Your task to perform on an android device: Clear all items from cart on ebay.com. Add panasonic triple a to the cart on ebay.com, then select checkout. Image 0: 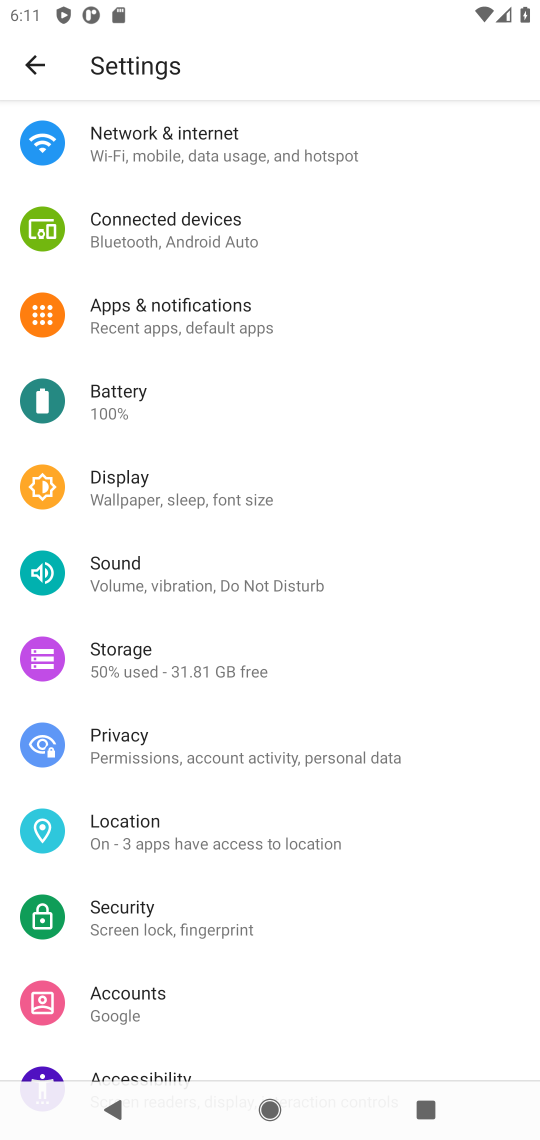
Step 0: press home button
Your task to perform on an android device: Clear all items from cart on ebay.com. Add panasonic triple a to the cart on ebay.com, then select checkout. Image 1: 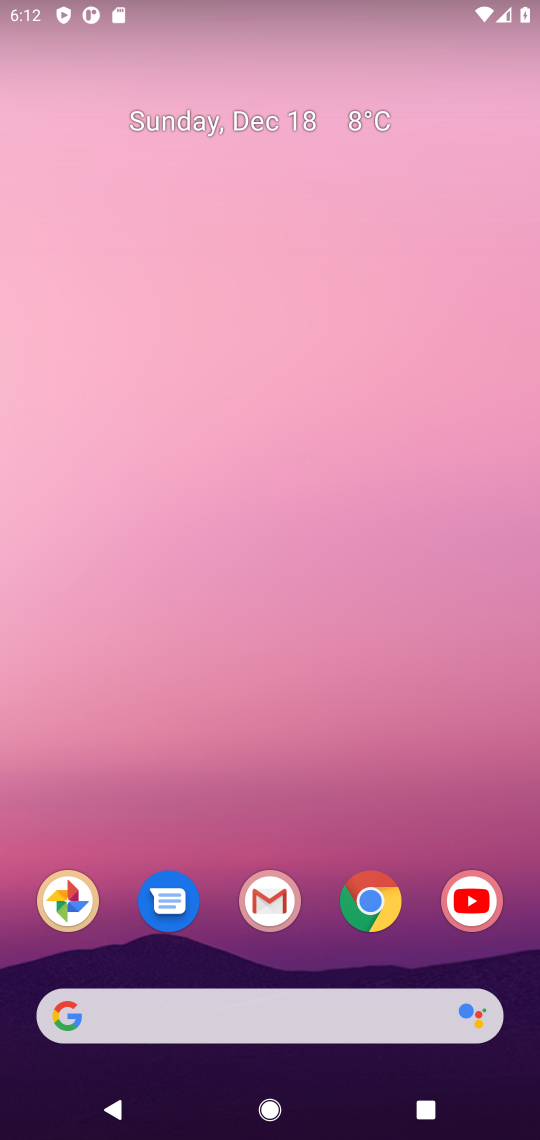
Step 1: click (356, 922)
Your task to perform on an android device: Clear all items from cart on ebay.com. Add panasonic triple a to the cart on ebay.com, then select checkout. Image 2: 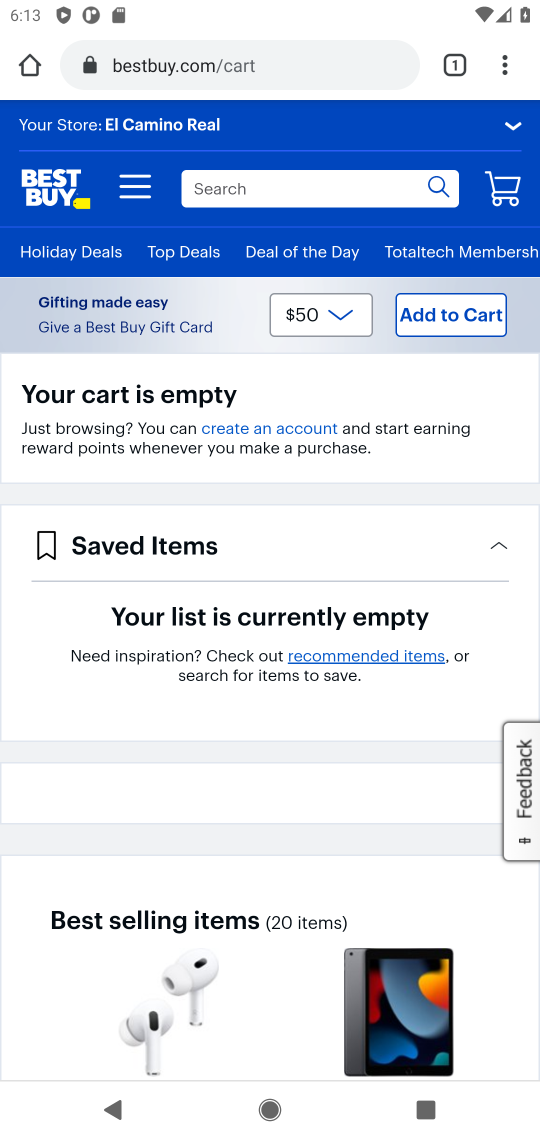
Step 2: click (215, 56)
Your task to perform on an android device: Clear all items from cart on ebay.com. Add panasonic triple a to the cart on ebay.com, then select checkout. Image 3: 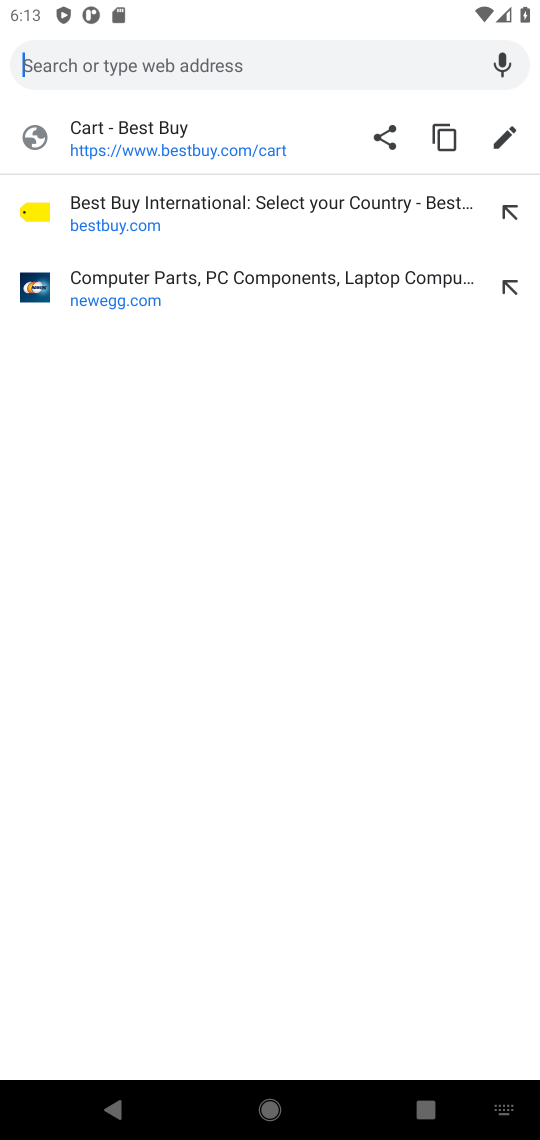
Step 3: type "ebay.com"
Your task to perform on an android device: Clear all items from cart on ebay.com. Add panasonic triple a to the cart on ebay.com, then select checkout. Image 4: 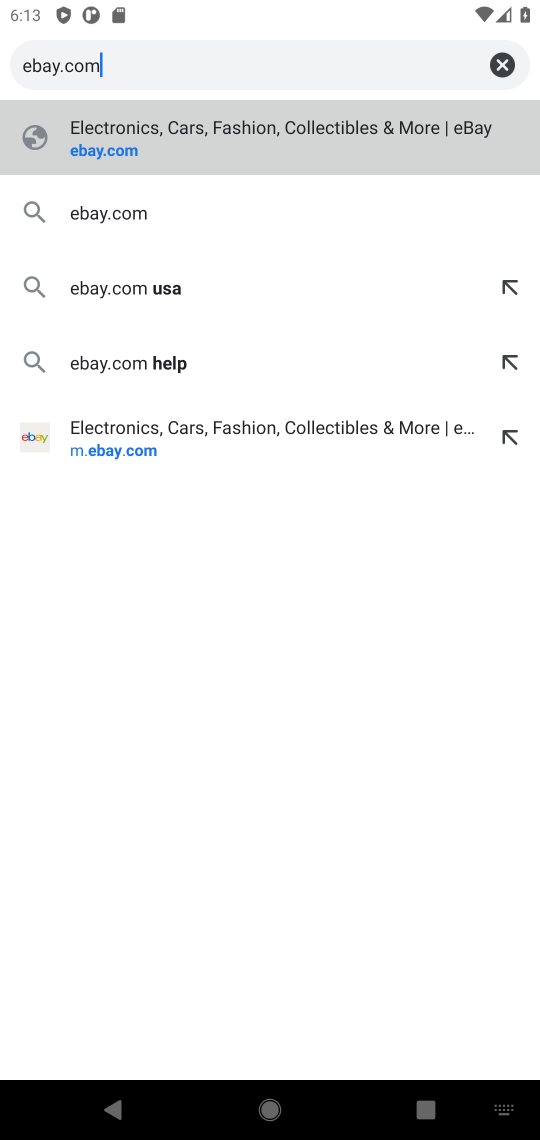
Step 4: click (255, 137)
Your task to perform on an android device: Clear all items from cart on ebay.com. Add panasonic triple a to the cart on ebay.com, then select checkout. Image 5: 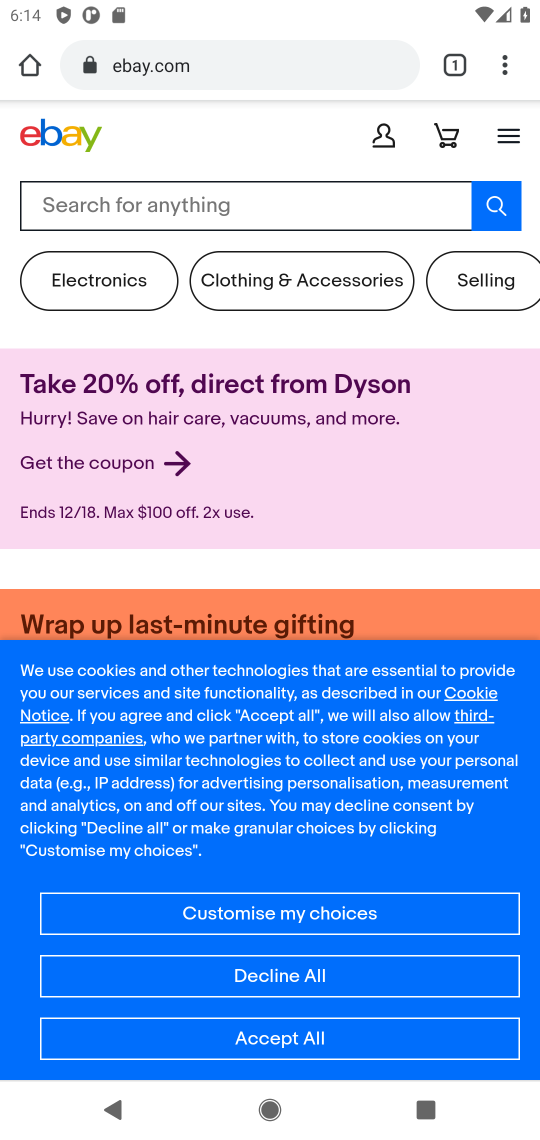
Step 5: click (186, 195)
Your task to perform on an android device: Clear all items from cart on ebay.com. Add panasonic triple a to the cart on ebay.com, then select checkout. Image 6: 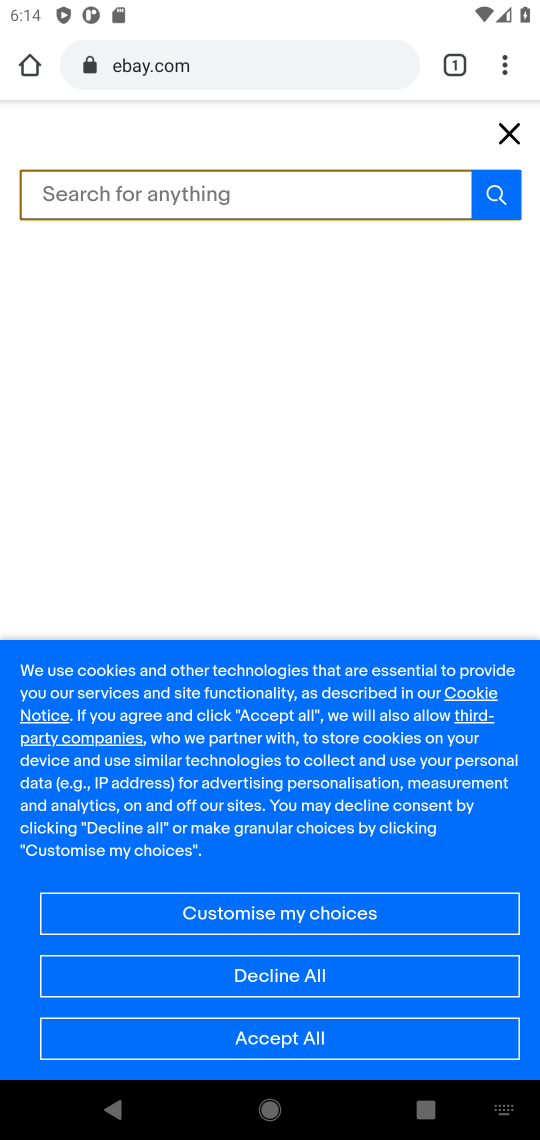
Step 6: type "panasonic triple "
Your task to perform on an android device: Clear all items from cart on ebay.com. Add panasonic triple a to the cart on ebay.com, then select checkout. Image 7: 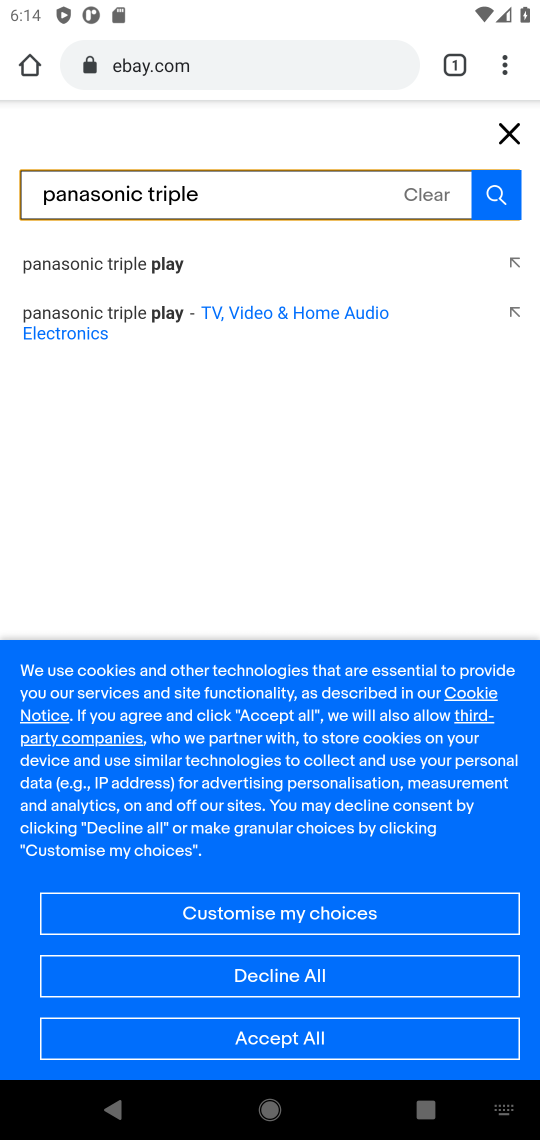
Step 7: click (507, 186)
Your task to perform on an android device: Clear all items from cart on ebay.com. Add panasonic triple a to the cart on ebay.com, then select checkout. Image 8: 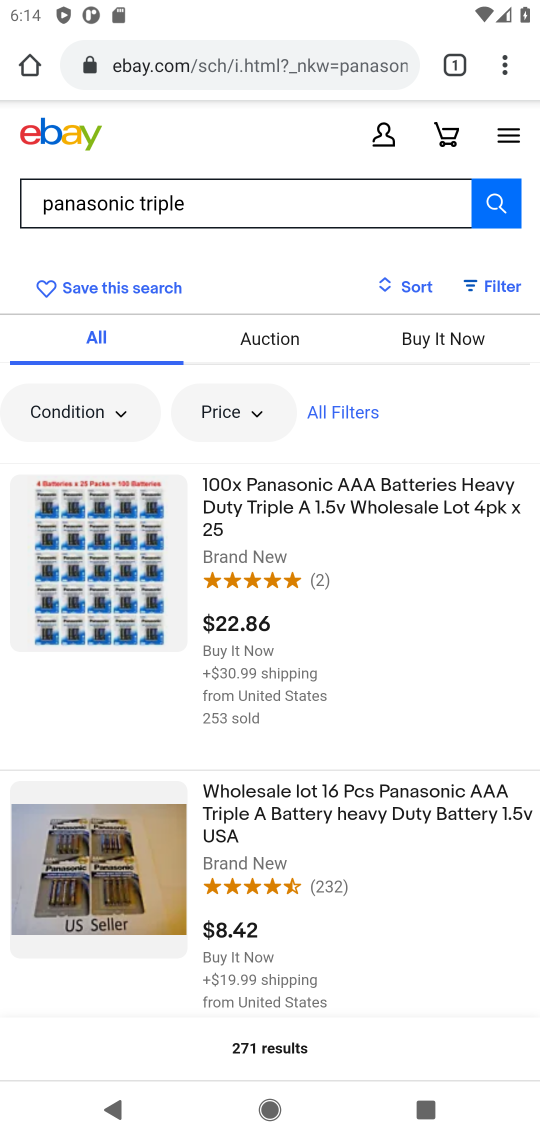
Step 8: task complete